Your task to perform on an android device: Show the shopping cart on newegg. Search for apple airpods pro on newegg, select the first entry, and add it to the cart. Image 0: 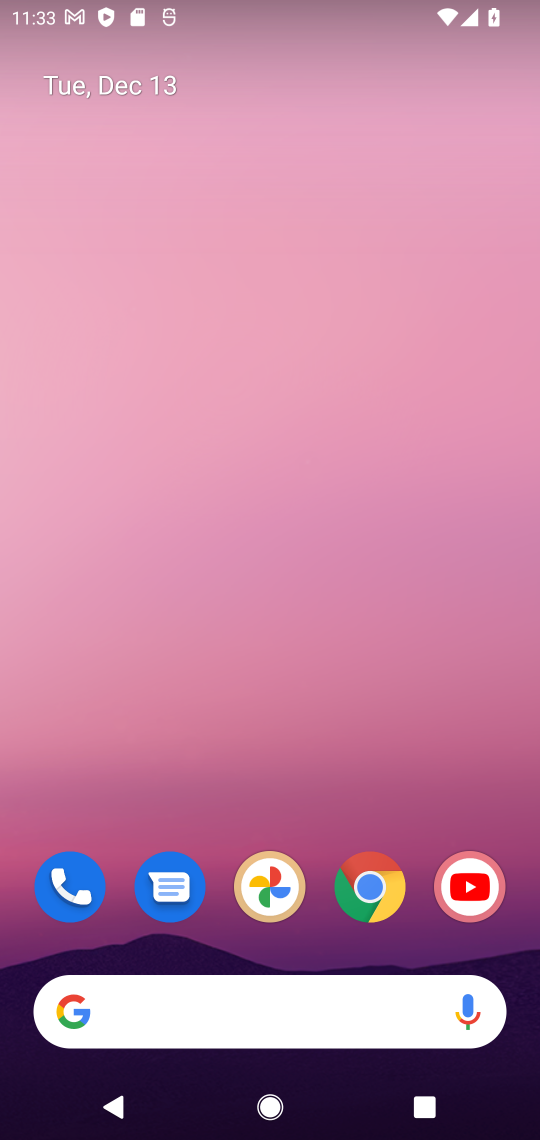
Step 0: drag from (302, 901) to (427, 211)
Your task to perform on an android device: Show the shopping cart on newegg. Search for apple airpods pro on newegg, select the first entry, and add it to the cart. Image 1: 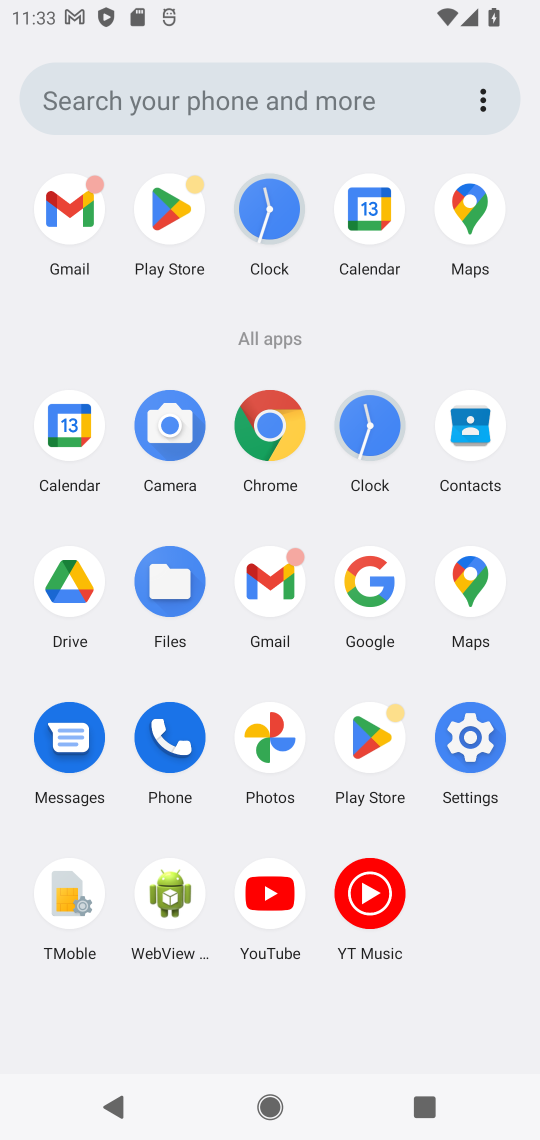
Step 1: click (381, 575)
Your task to perform on an android device: Show the shopping cart on newegg. Search for apple airpods pro on newegg, select the first entry, and add it to the cart. Image 2: 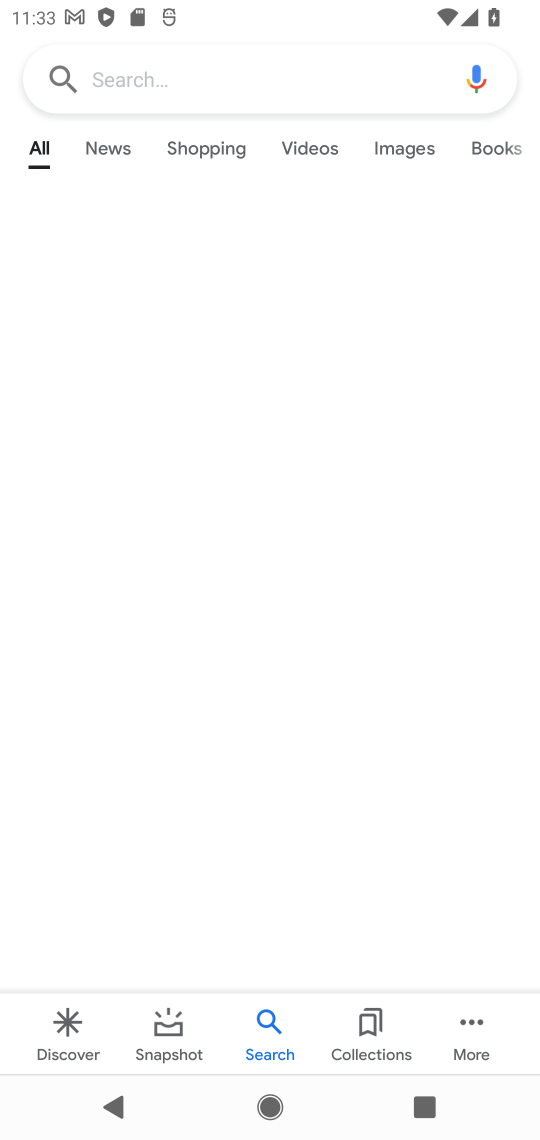
Step 2: click (163, 92)
Your task to perform on an android device: Show the shopping cart on newegg. Search for apple airpods pro on newegg, select the first entry, and add it to the cart. Image 3: 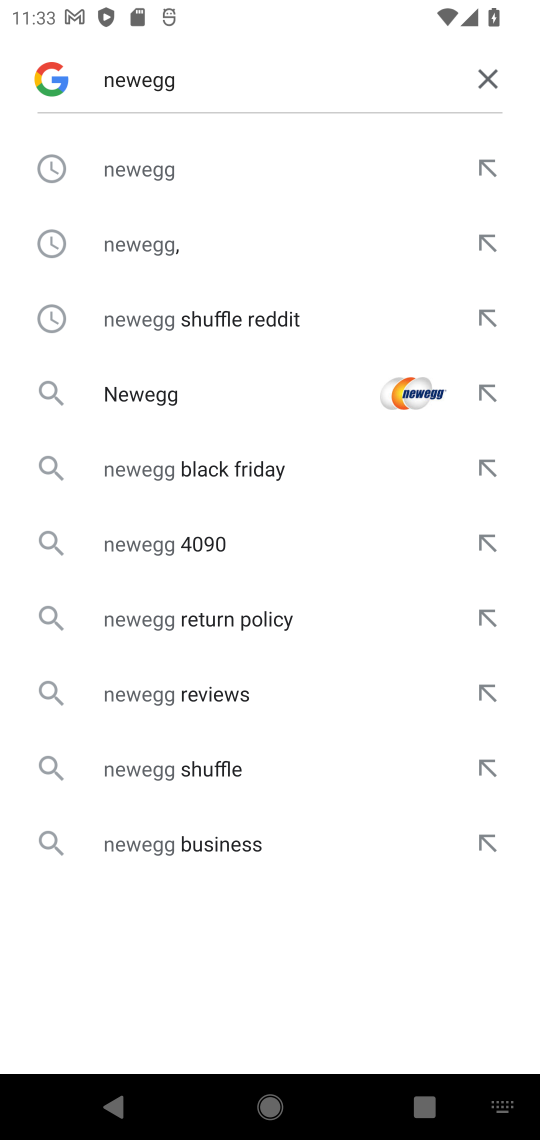
Step 3: click (158, 393)
Your task to perform on an android device: Show the shopping cart on newegg. Search for apple airpods pro on newegg, select the first entry, and add it to the cart. Image 4: 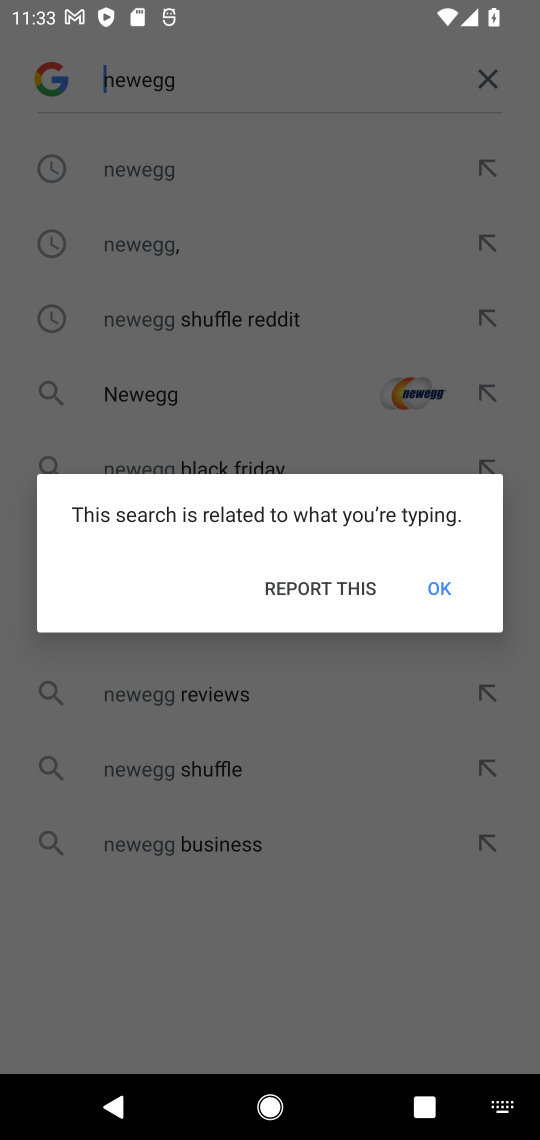
Step 4: click (443, 591)
Your task to perform on an android device: Show the shopping cart on newegg. Search for apple airpods pro on newegg, select the first entry, and add it to the cart. Image 5: 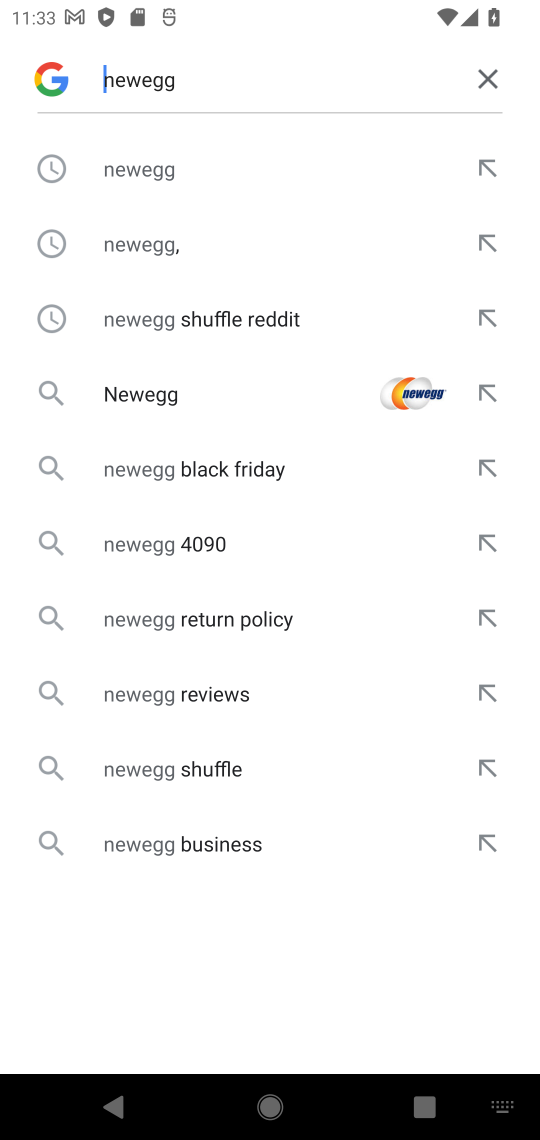
Step 5: click (425, 392)
Your task to perform on an android device: Show the shopping cart on newegg. Search for apple airpods pro on newegg, select the first entry, and add it to the cart. Image 6: 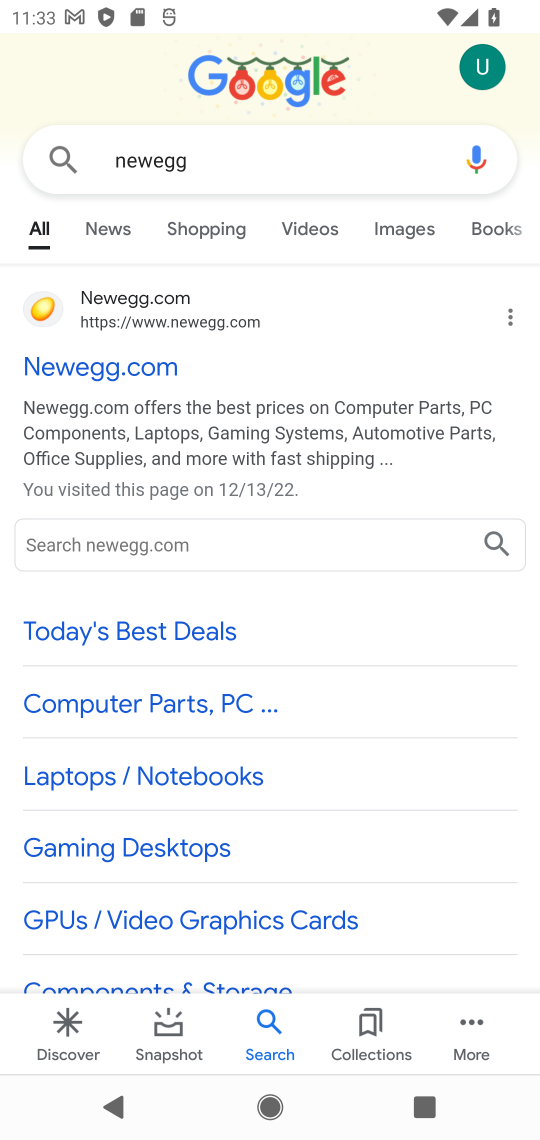
Step 6: click (153, 371)
Your task to perform on an android device: Show the shopping cart on newegg. Search for apple airpods pro on newegg, select the first entry, and add it to the cart. Image 7: 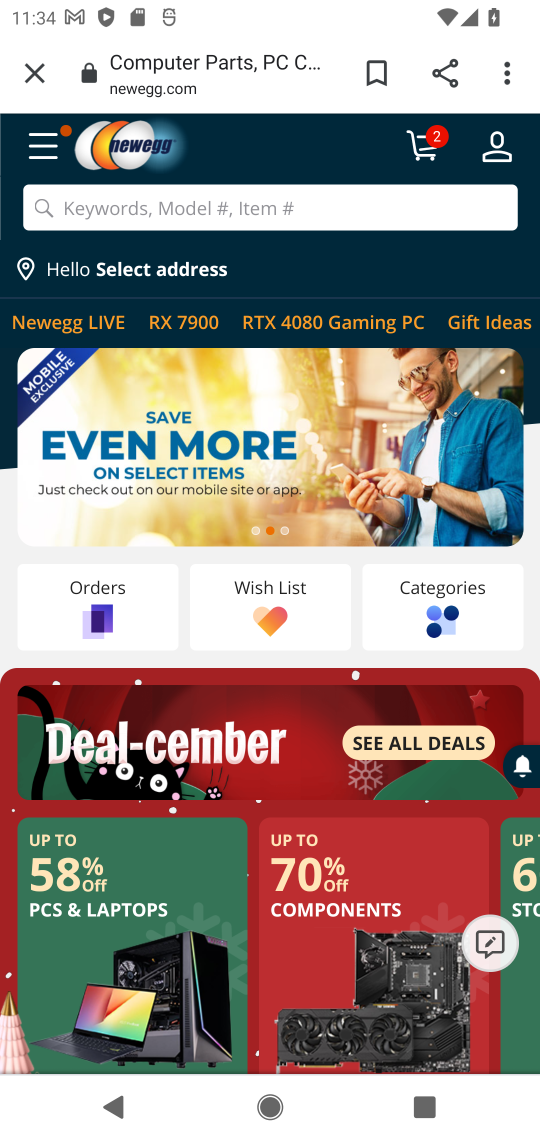
Step 7: click (433, 151)
Your task to perform on an android device: Show the shopping cart on newegg. Search for apple airpods pro on newegg, select the first entry, and add it to the cart. Image 8: 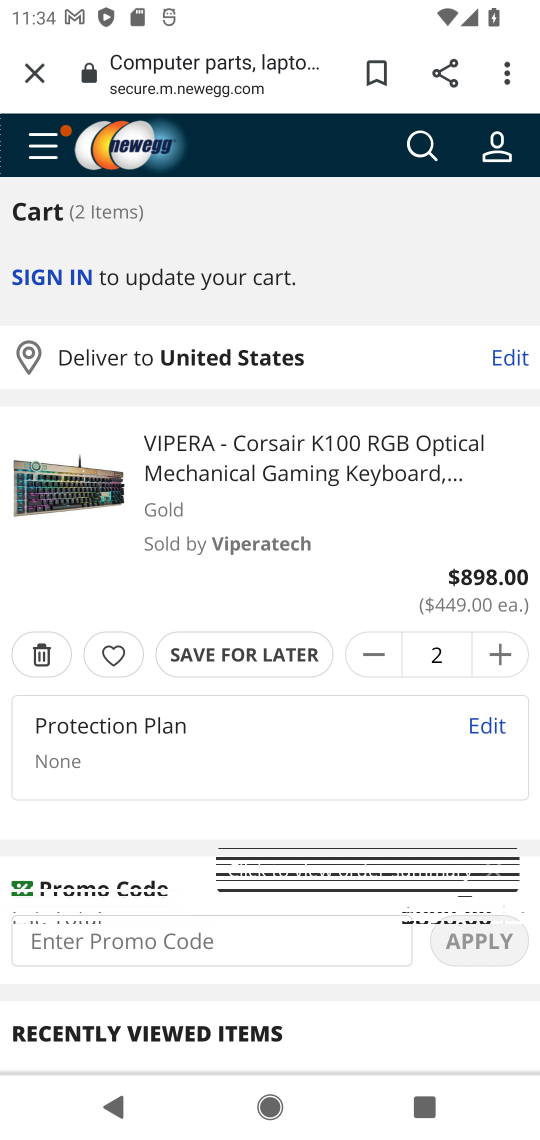
Step 8: click (426, 145)
Your task to perform on an android device: Show the shopping cart on newegg. Search for apple airpods pro on newegg, select the first entry, and add it to the cart. Image 9: 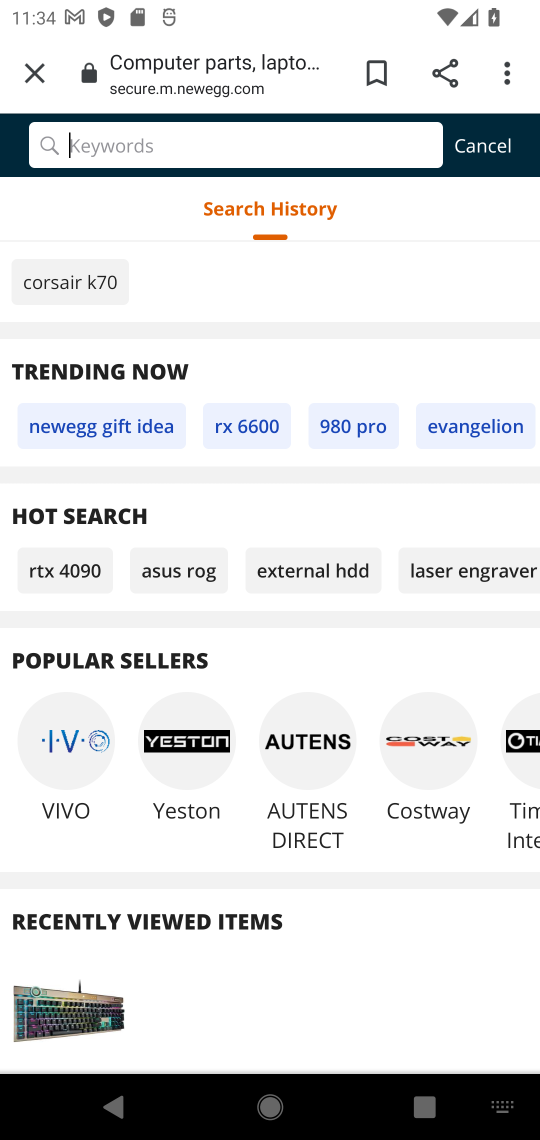
Step 9: type "apple airpods pro"
Your task to perform on an android device: Show the shopping cart on newegg. Search for apple airpods pro on newegg, select the first entry, and add it to the cart. Image 10: 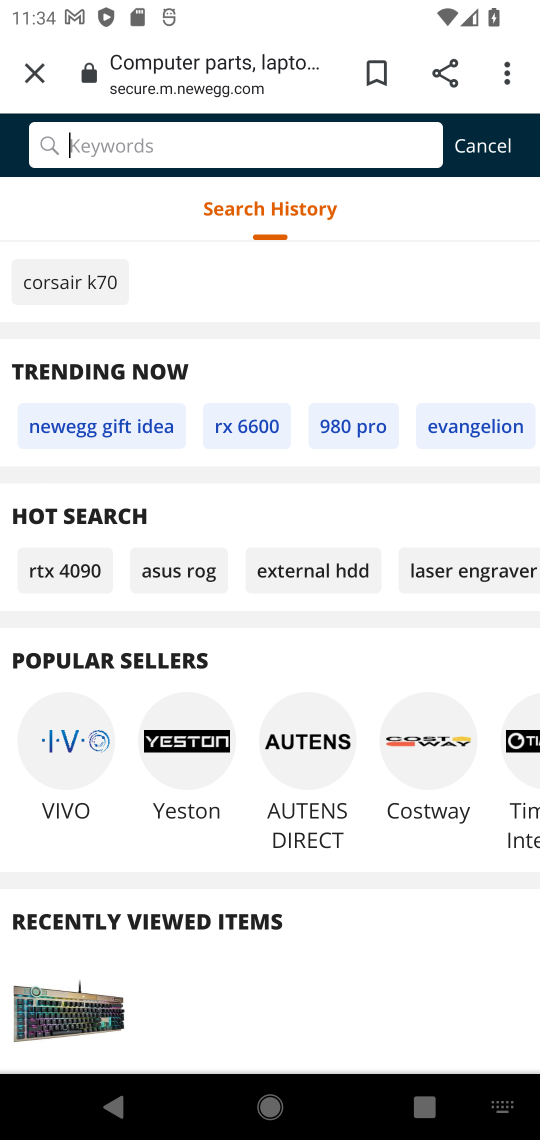
Step 10: click (46, 152)
Your task to perform on an android device: Show the shopping cart on newegg. Search for apple airpods pro on newegg, select the first entry, and add it to the cart. Image 11: 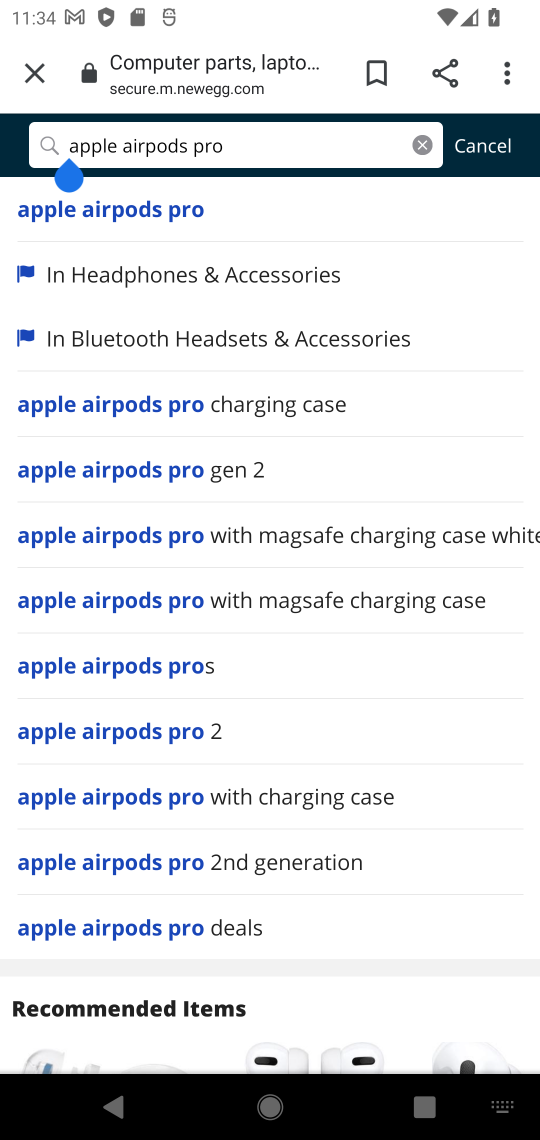
Step 11: click (131, 210)
Your task to perform on an android device: Show the shopping cart on newegg. Search for apple airpods pro on newegg, select the first entry, and add it to the cart. Image 12: 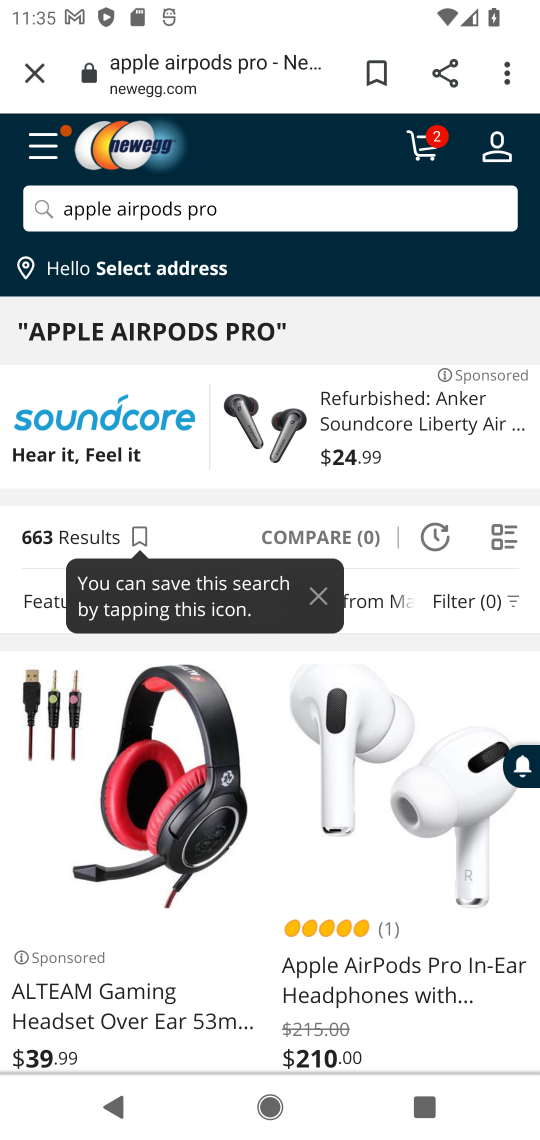
Step 12: drag from (274, 999) to (379, 483)
Your task to perform on an android device: Show the shopping cart on newegg. Search for apple airpods pro on newegg, select the first entry, and add it to the cart. Image 13: 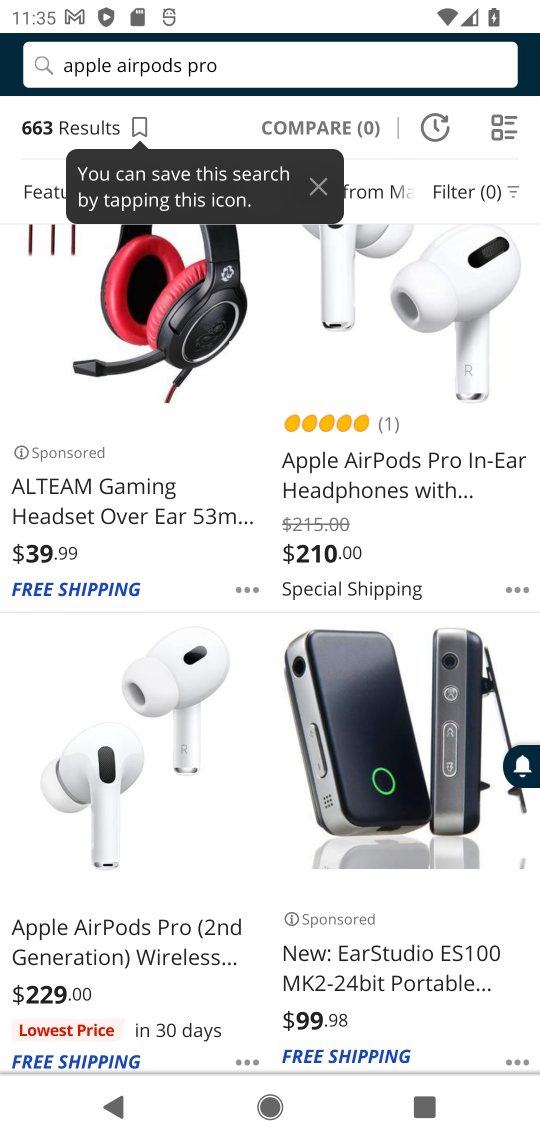
Step 13: click (114, 491)
Your task to perform on an android device: Show the shopping cart on newegg. Search for apple airpods pro on newegg, select the first entry, and add it to the cart. Image 14: 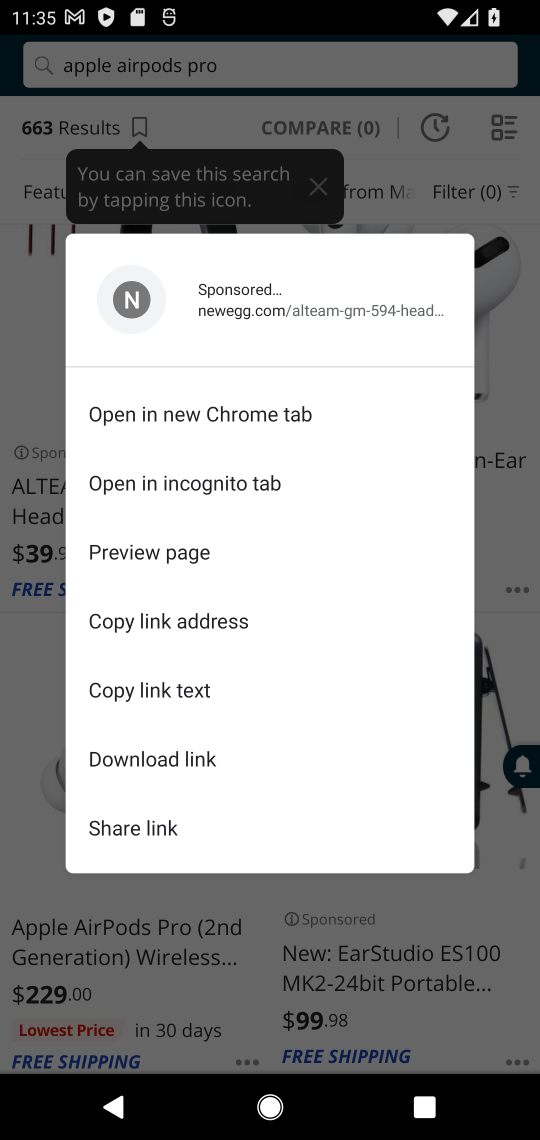
Step 14: click (422, 216)
Your task to perform on an android device: Show the shopping cart on newegg. Search for apple airpods pro on newegg, select the first entry, and add it to the cart. Image 15: 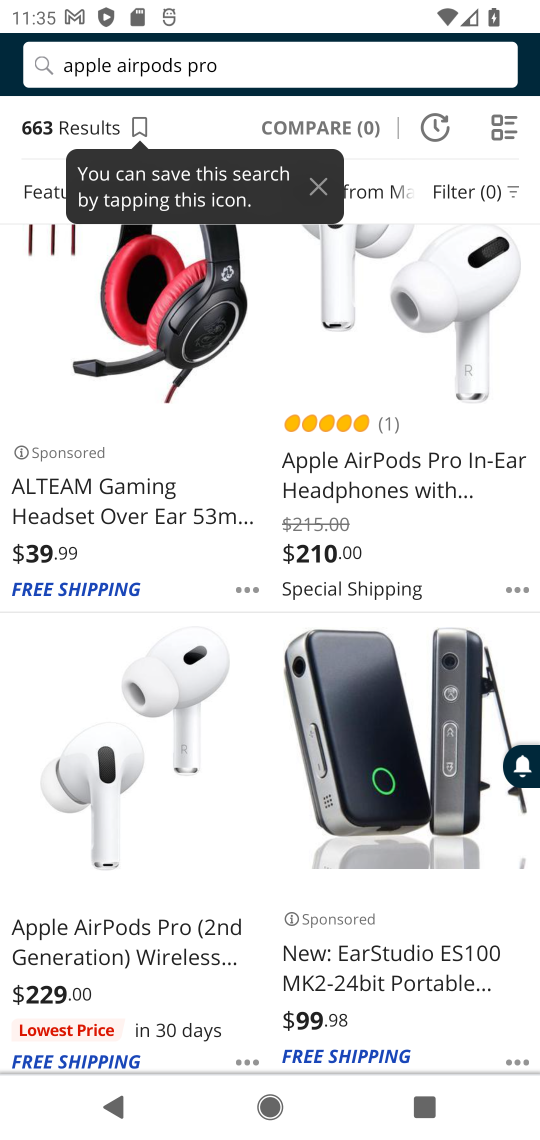
Step 15: click (97, 492)
Your task to perform on an android device: Show the shopping cart on newegg. Search for apple airpods pro on newegg, select the first entry, and add it to the cart. Image 16: 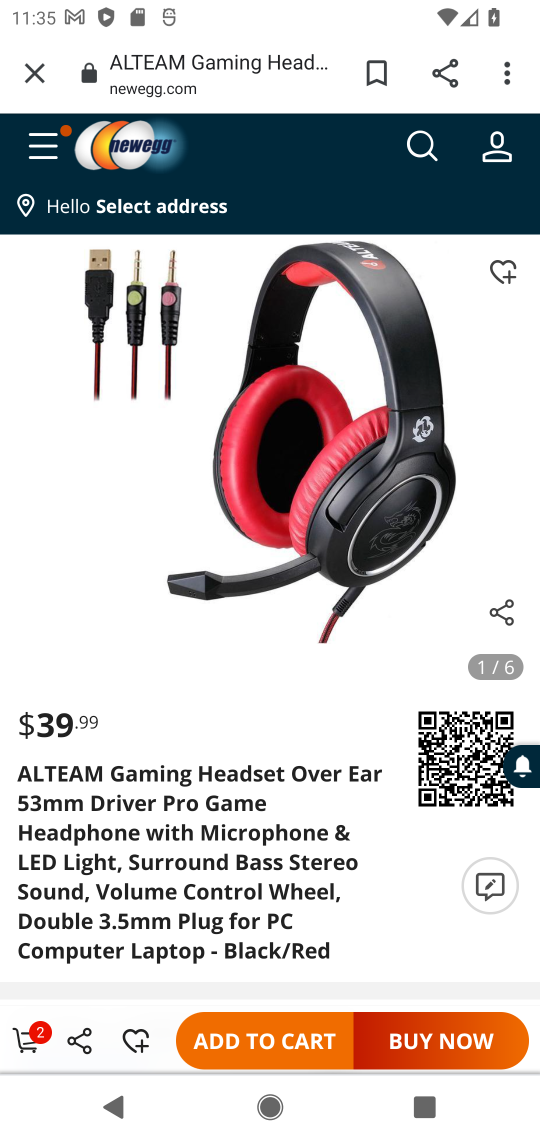
Step 16: click (280, 1029)
Your task to perform on an android device: Show the shopping cart on newegg. Search for apple airpods pro on newegg, select the first entry, and add it to the cart. Image 17: 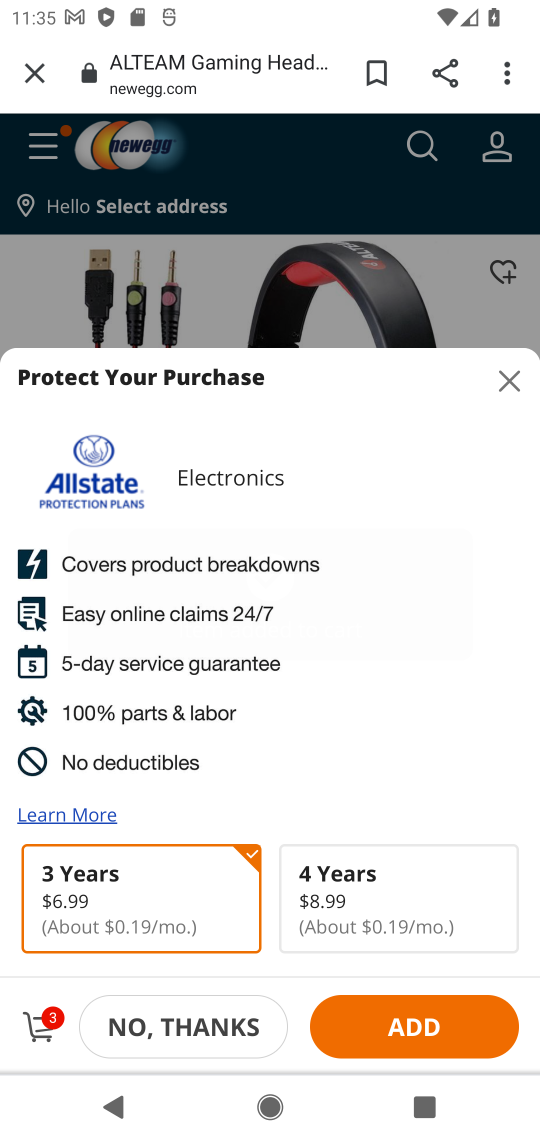
Step 17: click (32, 1022)
Your task to perform on an android device: Show the shopping cart on newegg. Search for apple airpods pro on newegg, select the first entry, and add it to the cart. Image 18: 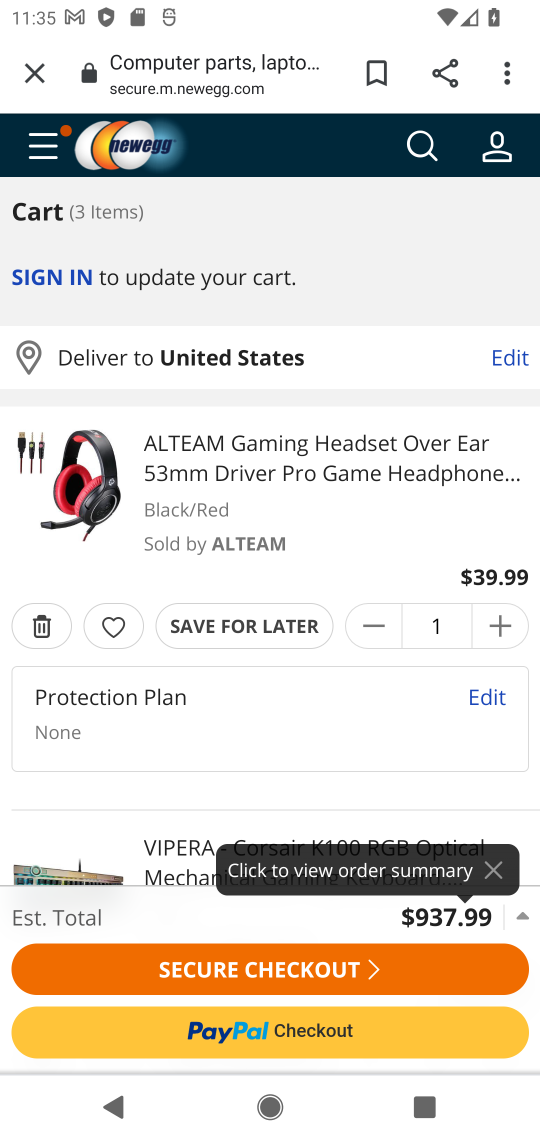
Step 18: click (230, 972)
Your task to perform on an android device: Show the shopping cart on newegg. Search for apple airpods pro on newegg, select the first entry, and add it to the cart. Image 19: 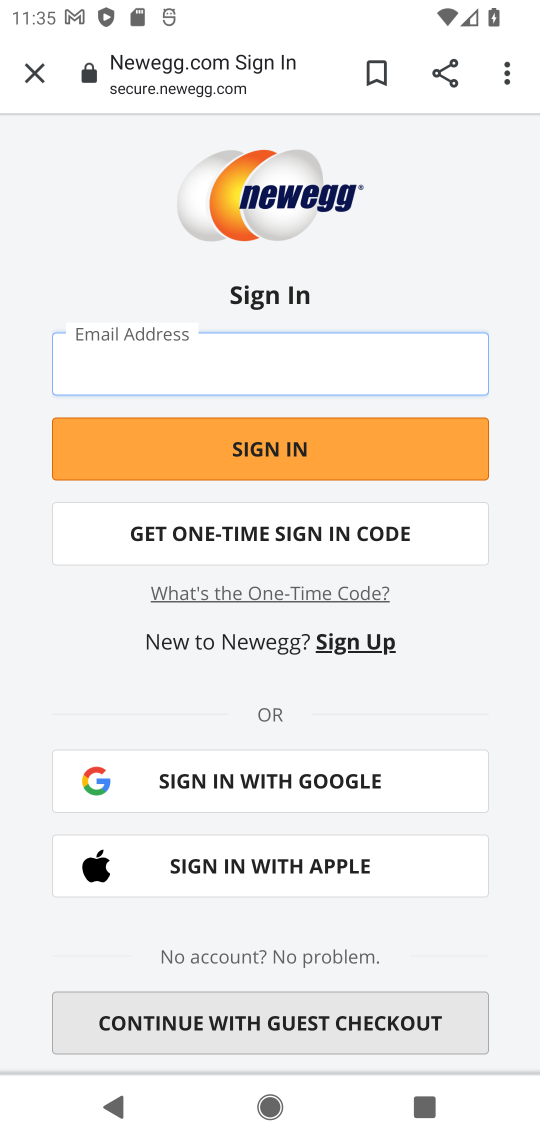
Step 19: task complete